Your task to perform on an android device: Open Wikipedia Image 0: 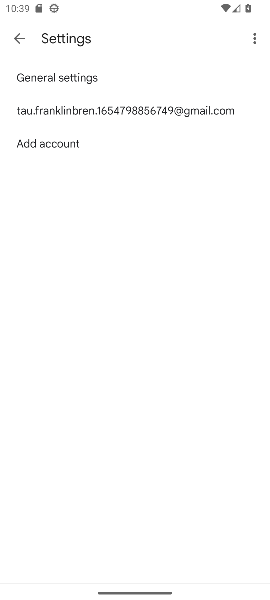
Step 0: press home button
Your task to perform on an android device: Open Wikipedia Image 1: 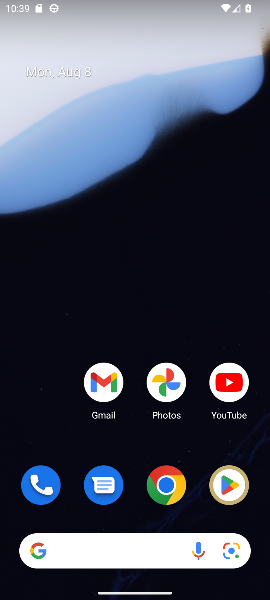
Step 1: drag from (130, 509) to (121, 32)
Your task to perform on an android device: Open Wikipedia Image 2: 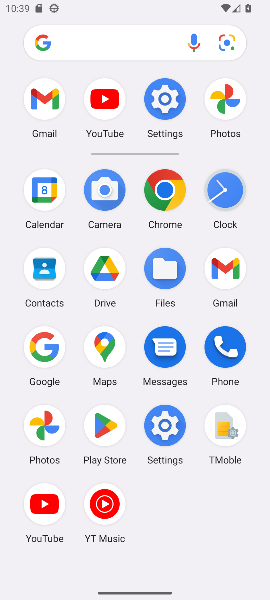
Step 2: click (164, 192)
Your task to perform on an android device: Open Wikipedia Image 3: 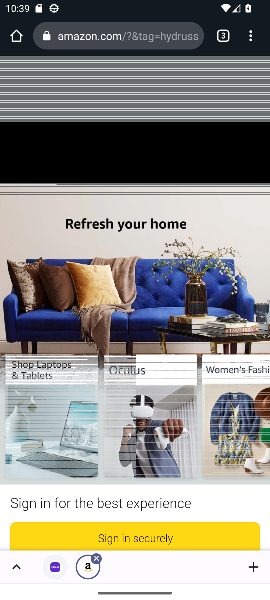
Step 3: click (90, 36)
Your task to perform on an android device: Open Wikipedia Image 4: 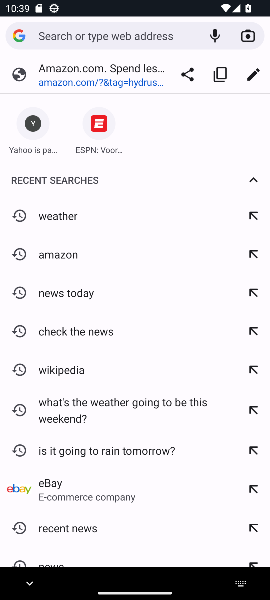
Step 4: type "Wikipedia"
Your task to perform on an android device: Open Wikipedia Image 5: 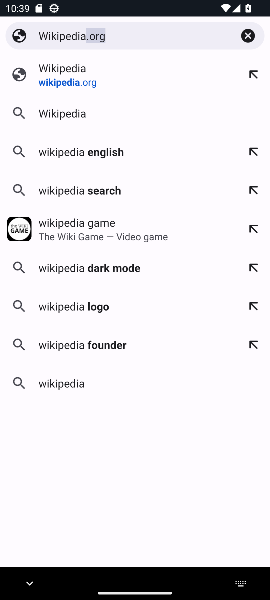
Step 5: click (76, 80)
Your task to perform on an android device: Open Wikipedia Image 6: 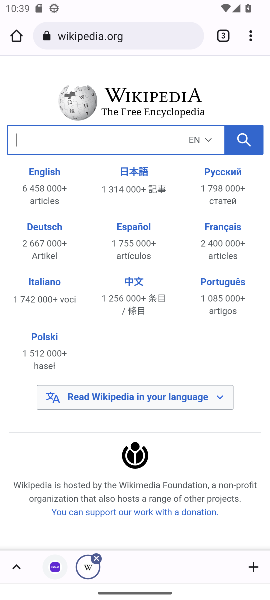
Step 6: task complete